Your task to perform on an android device: turn on wifi Image 0: 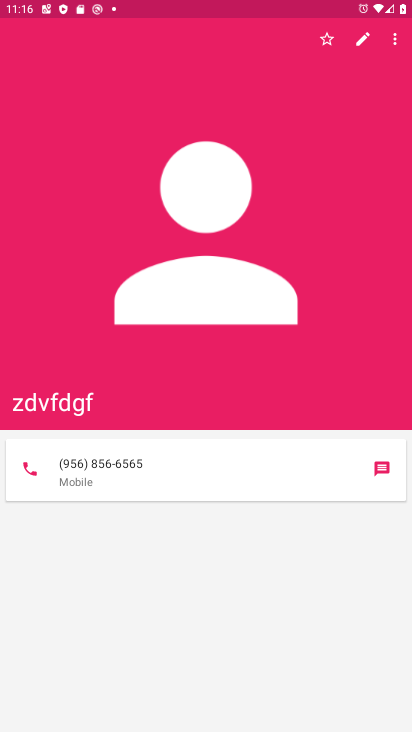
Step 0: press home button
Your task to perform on an android device: turn on wifi Image 1: 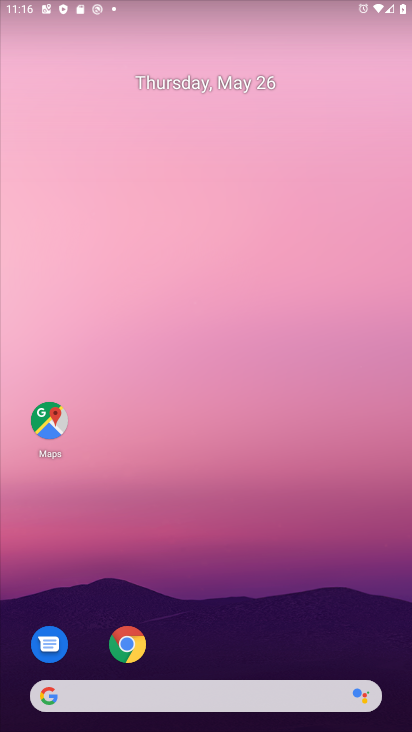
Step 1: drag from (193, 645) to (182, 102)
Your task to perform on an android device: turn on wifi Image 2: 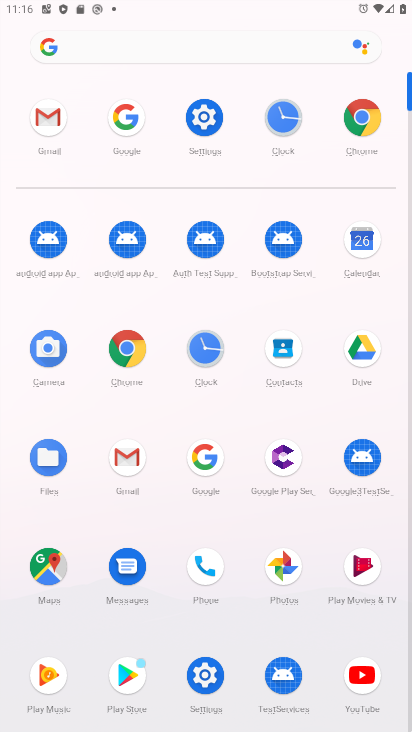
Step 2: click (182, 102)
Your task to perform on an android device: turn on wifi Image 3: 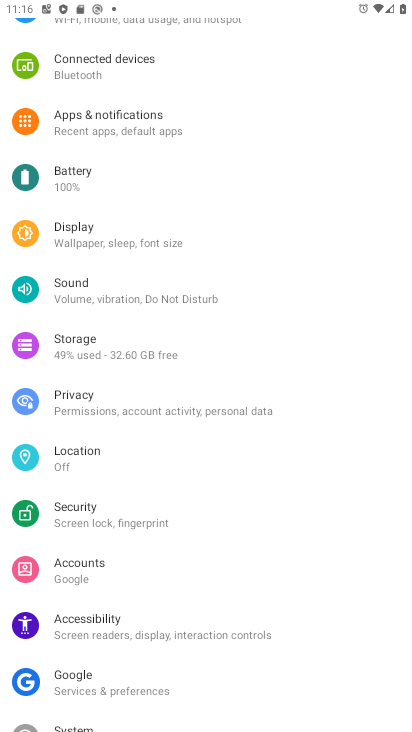
Step 3: drag from (182, 102) to (236, 466)
Your task to perform on an android device: turn on wifi Image 4: 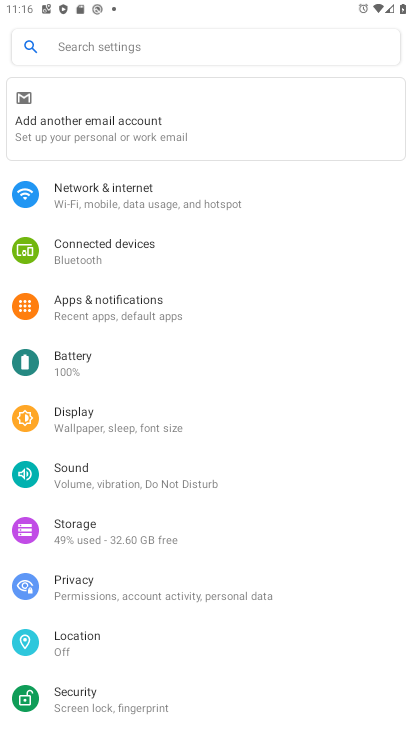
Step 4: click (147, 192)
Your task to perform on an android device: turn on wifi Image 5: 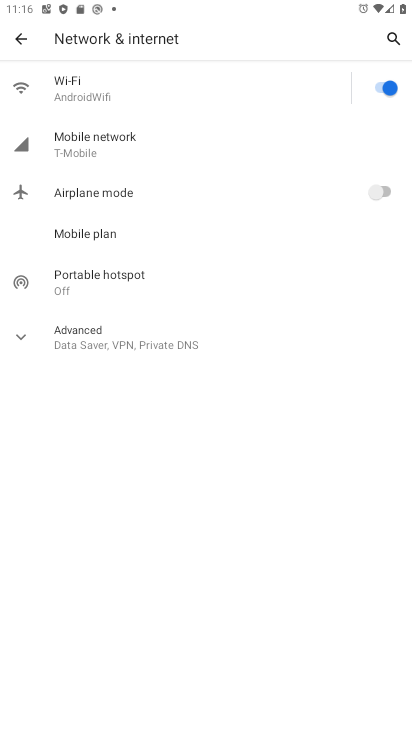
Step 5: task complete